Your task to perform on an android device: Go to ESPN.com Image 0: 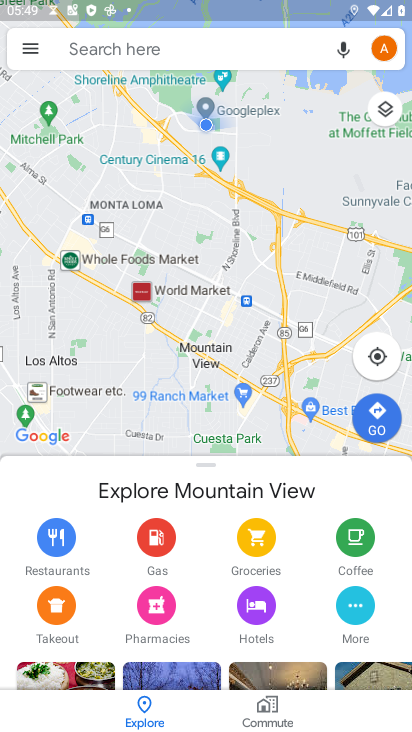
Step 0: press home button
Your task to perform on an android device: Go to ESPN.com Image 1: 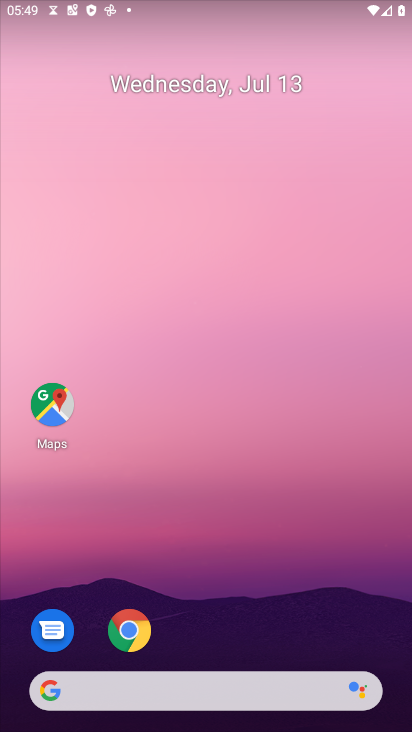
Step 1: drag from (323, 674) to (253, 5)
Your task to perform on an android device: Go to ESPN.com Image 2: 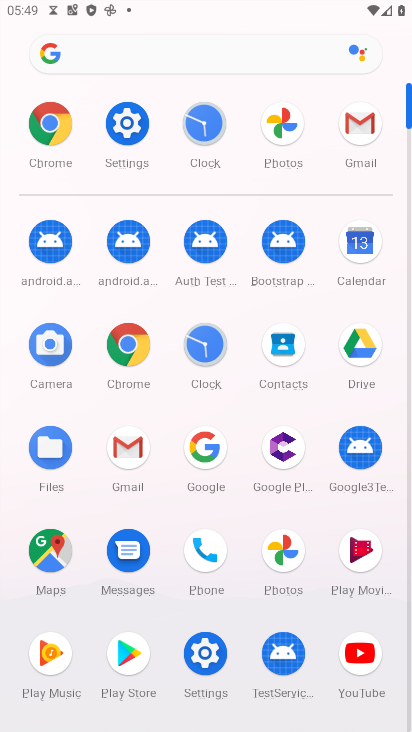
Step 2: click (133, 344)
Your task to perform on an android device: Go to ESPN.com Image 3: 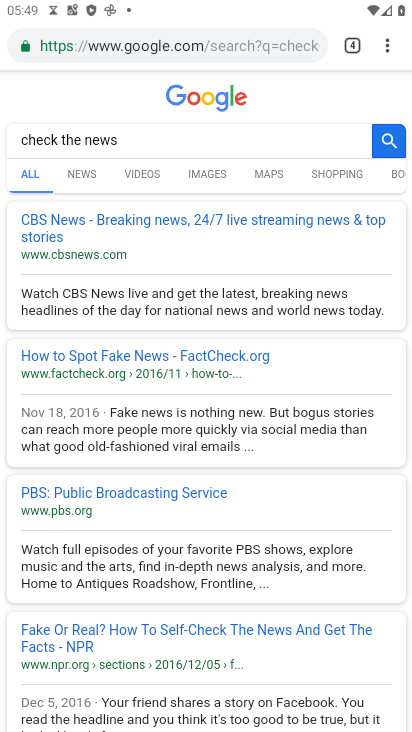
Step 3: click (219, 55)
Your task to perform on an android device: Go to ESPN.com Image 4: 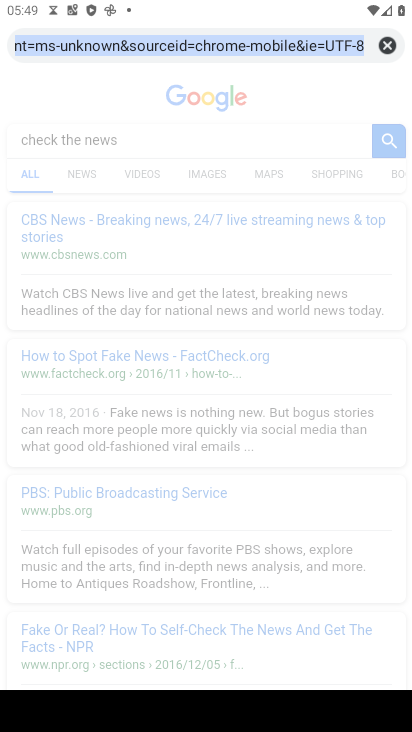
Step 4: type "espn.com"
Your task to perform on an android device: Go to ESPN.com Image 5: 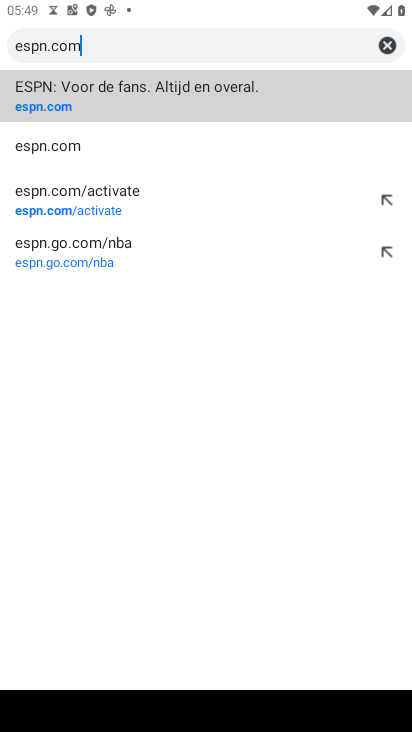
Step 5: click (187, 111)
Your task to perform on an android device: Go to ESPN.com Image 6: 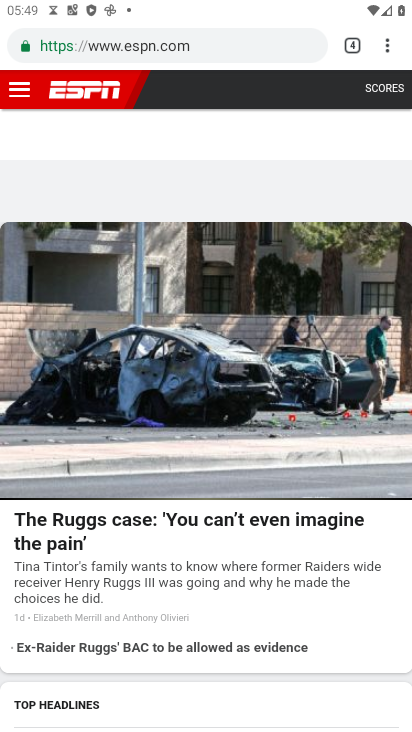
Step 6: task complete